Your task to perform on an android device: Go to Maps Image 0: 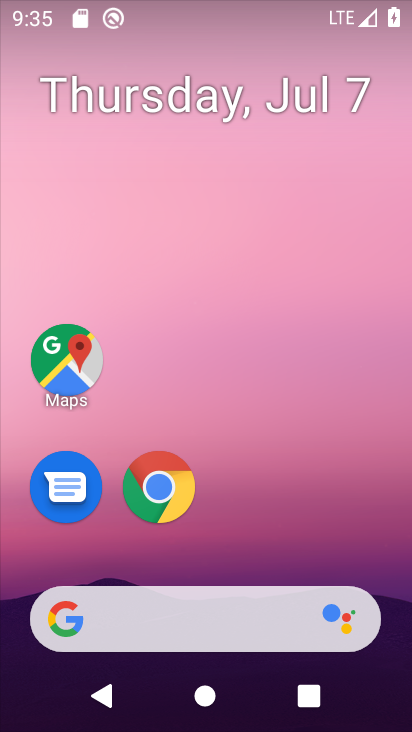
Step 0: drag from (368, 529) to (357, 156)
Your task to perform on an android device: Go to Maps Image 1: 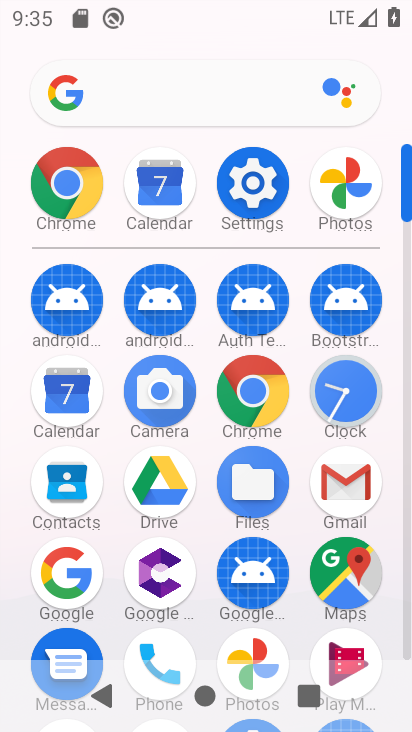
Step 1: click (354, 563)
Your task to perform on an android device: Go to Maps Image 2: 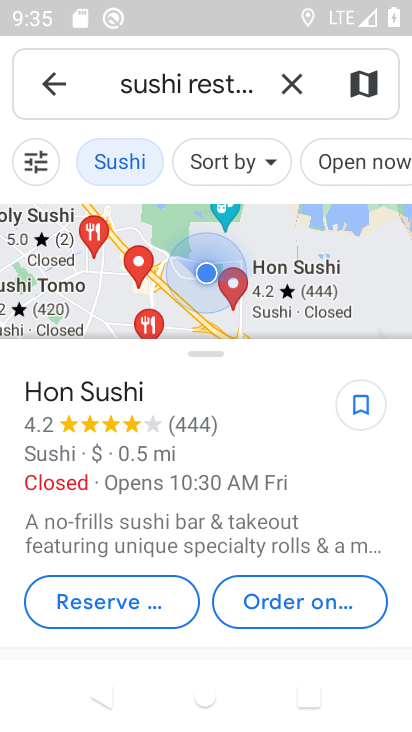
Step 2: task complete